Your task to perform on an android device: open a new tab in the chrome app Image 0: 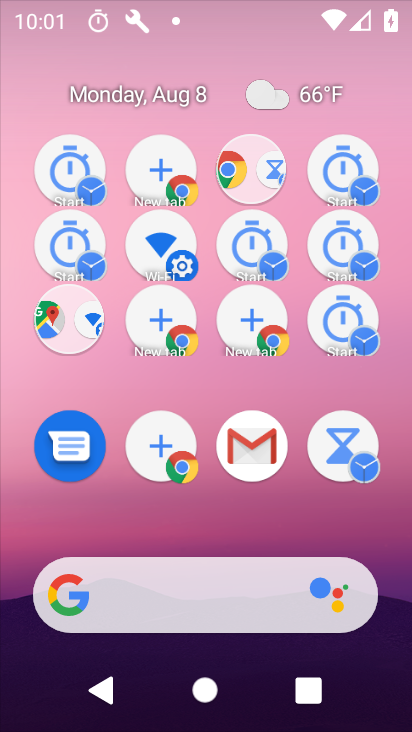
Step 0: drag from (295, 650) to (237, 150)
Your task to perform on an android device: open a new tab in the chrome app Image 1: 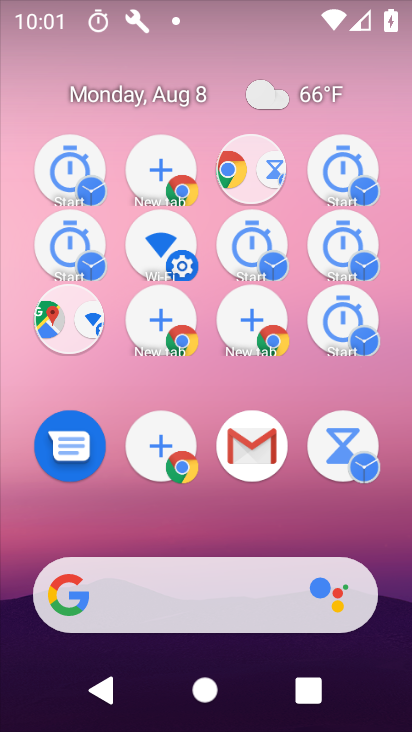
Step 1: click (249, 379)
Your task to perform on an android device: open a new tab in the chrome app Image 2: 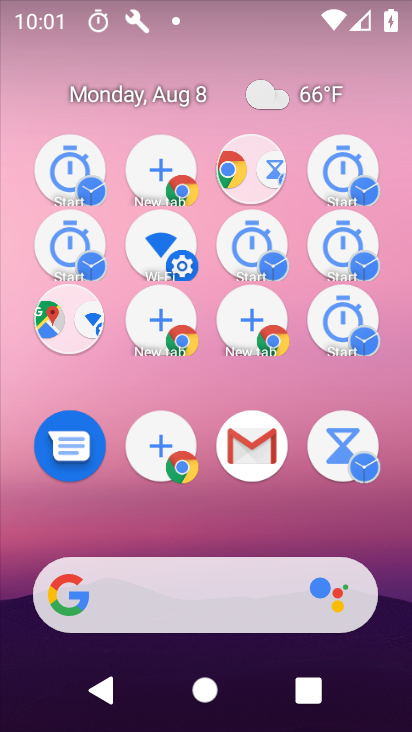
Step 2: click (200, 115)
Your task to perform on an android device: open a new tab in the chrome app Image 3: 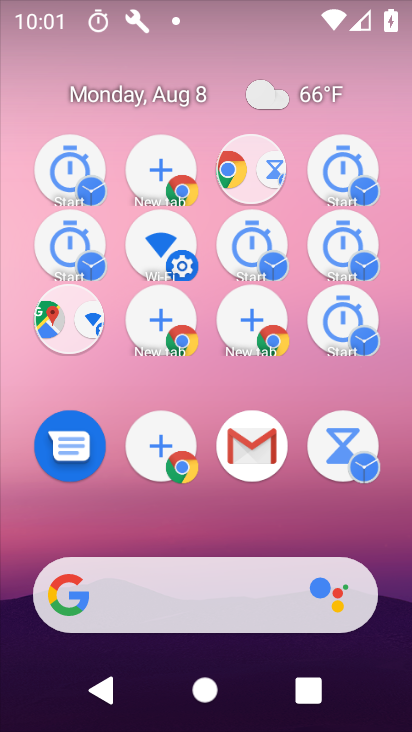
Step 3: drag from (299, 499) to (235, 151)
Your task to perform on an android device: open a new tab in the chrome app Image 4: 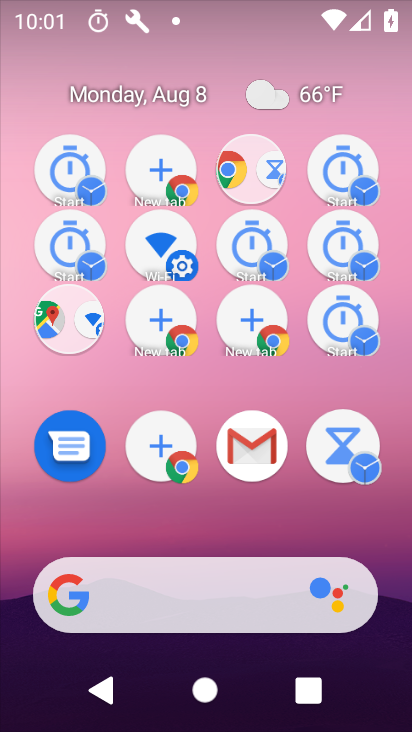
Step 4: drag from (217, 589) to (213, 141)
Your task to perform on an android device: open a new tab in the chrome app Image 5: 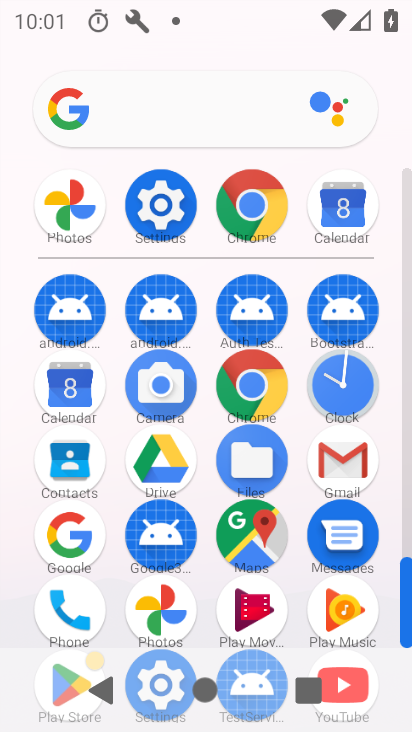
Step 5: click (250, 211)
Your task to perform on an android device: open a new tab in the chrome app Image 6: 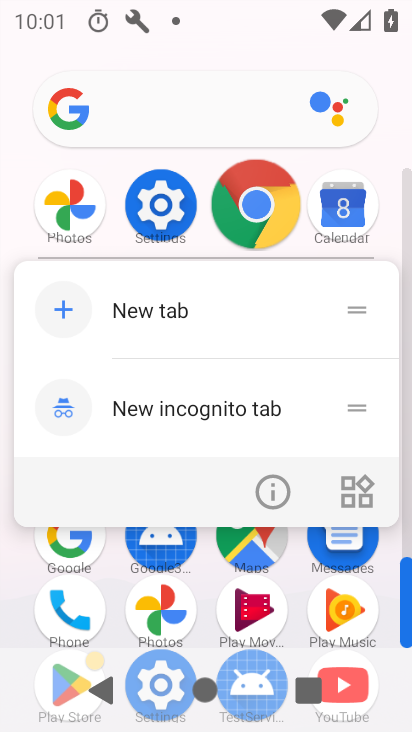
Step 6: click (193, 301)
Your task to perform on an android device: open a new tab in the chrome app Image 7: 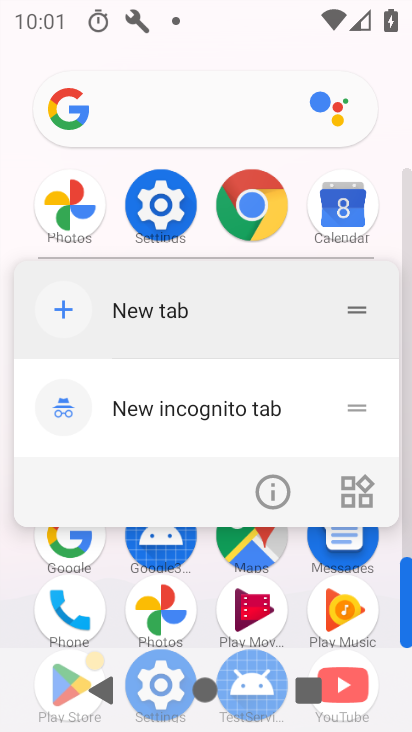
Step 7: click (192, 303)
Your task to perform on an android device: open a new tab in the chrome app Image 8: 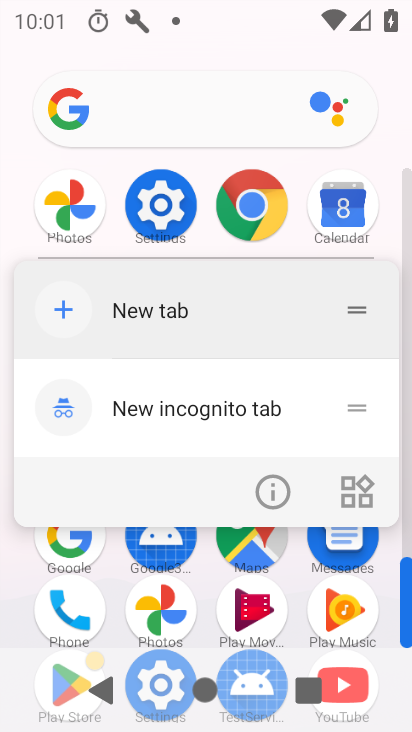
Step 8: click (196, 302)
Your task to perform on an android device: open a new tab in the chrome app Image 9: 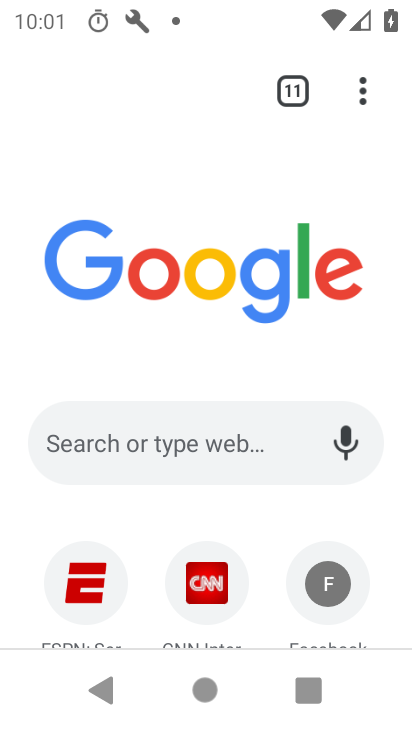
Step 9: task complete